Your task to perform on an android device: turn off data saver in the chrome app Image 0: 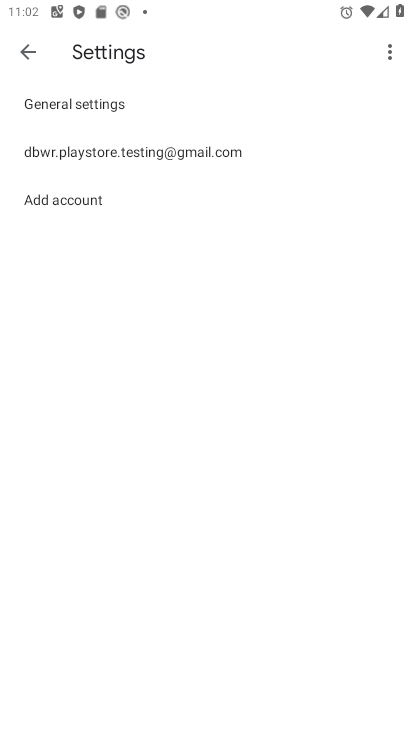
Step 0: press home button
Your task to perform on an android device: turn off data saver in the chrome app Image 1: 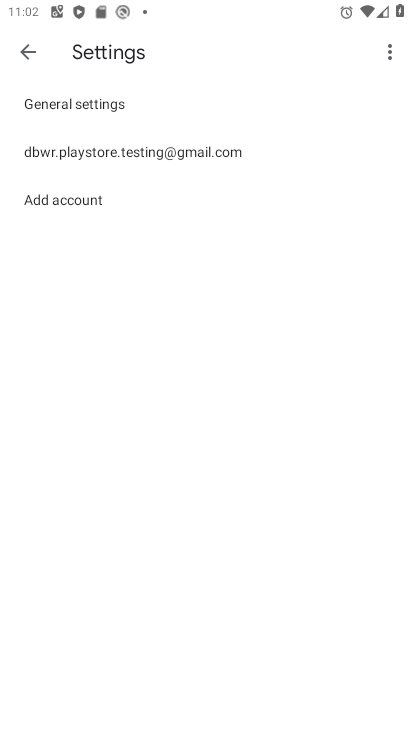
Step 1: press home button
Your task to perform on an android device: turn off data saver in the chrome app Image 2: 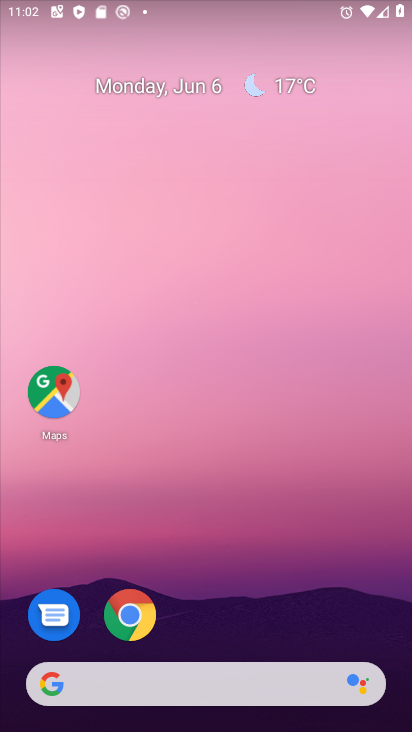
Step 2: click (127, 611)
Your task to perform on an android device: turn off data saver in the chrome app Image 3: 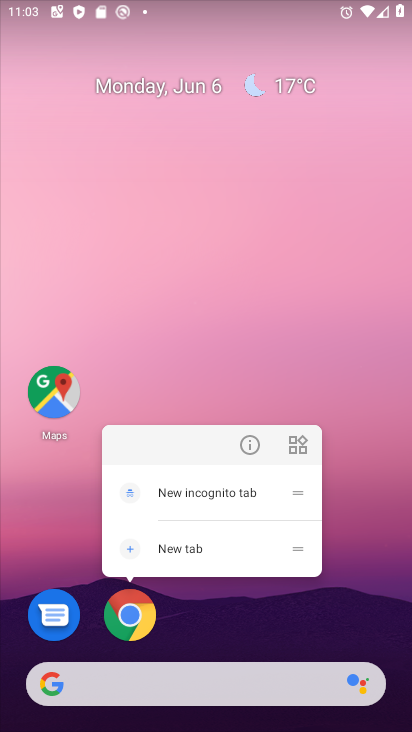
Step 3: click (128, 607)
Your task to perform on an android device: turn off data saver in the chrome app Image 4: 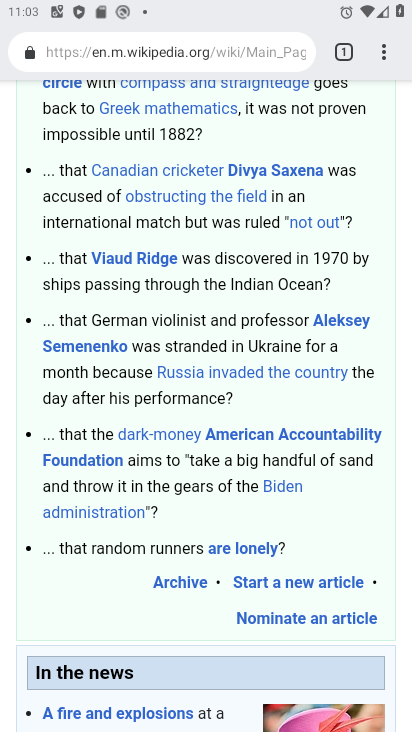
Step 4: click (384, 47)
Your task to perform on an android device: turn off data saver in the chrome app Image 5: 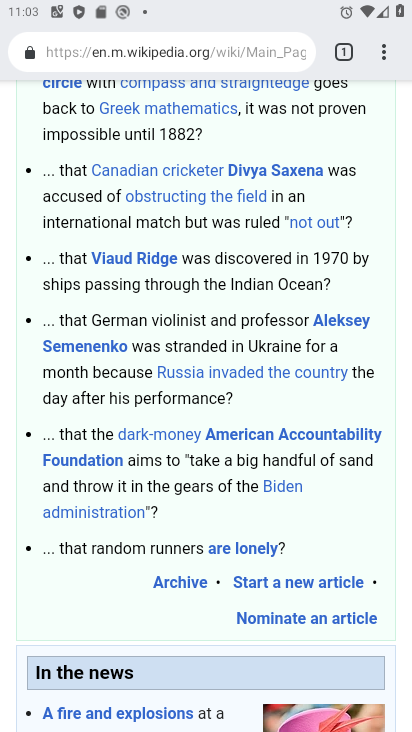
Step 5: click (388, 48)
Your task to perform on an android device: turn off data saver in the chrome app Image 6: 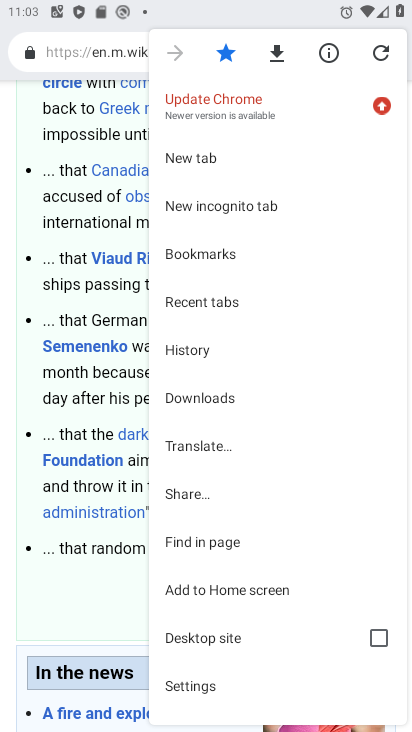
Step 6: click (227, 680)
Your task to perform on an android device: turn off data saver in the chrome app Image 7: 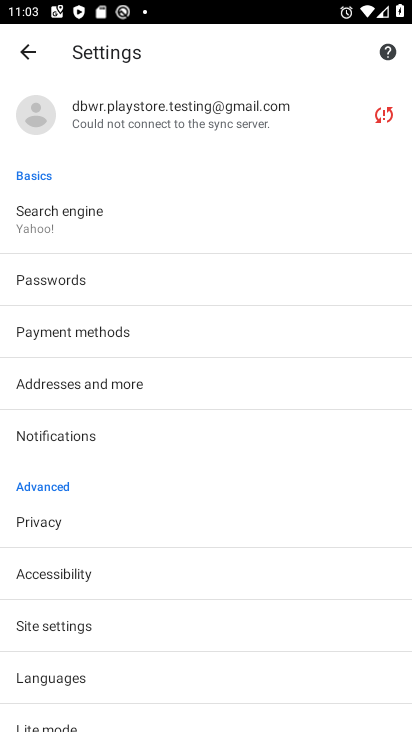
Step 7: click (96, 719)
Your task to perform on an android device: turn off data saver in the chrome app Image 8: 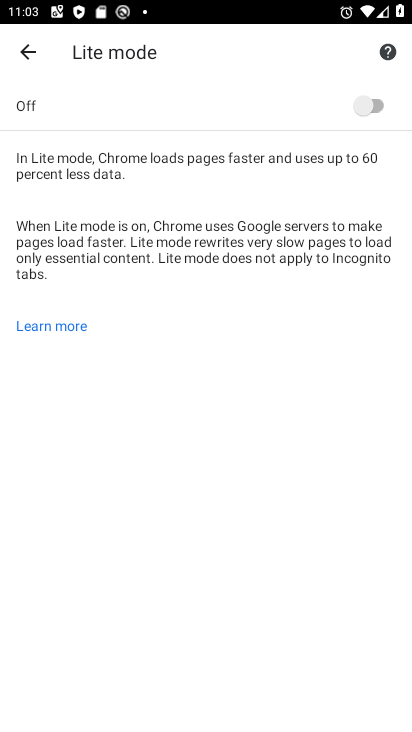
Step 8: task complete